Your task to perform on an android device: turn on priority inbox in the gmail app Image 0: 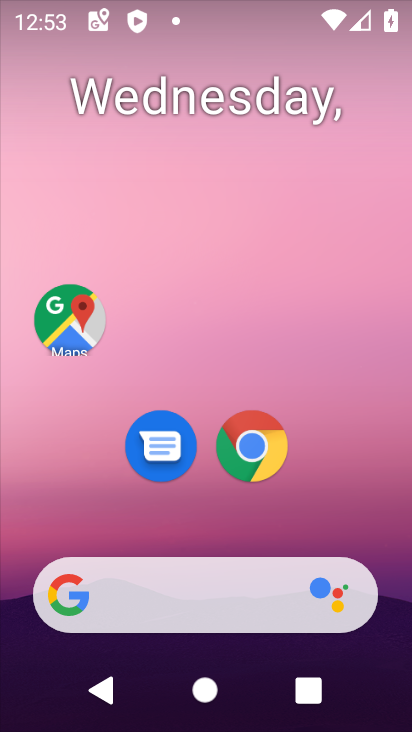
Step 0: drag from (249, 506) to (159, 104)
Your task to perform on an android device: turn on priority inbox in the gmail app Image 1: 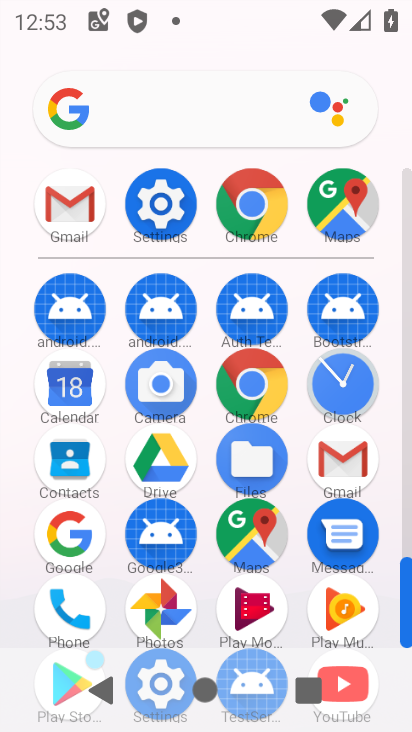
Step 1: click (340, 476)
Your task to perform on an android device: turn on priority inbox in the gmail app Image 2: 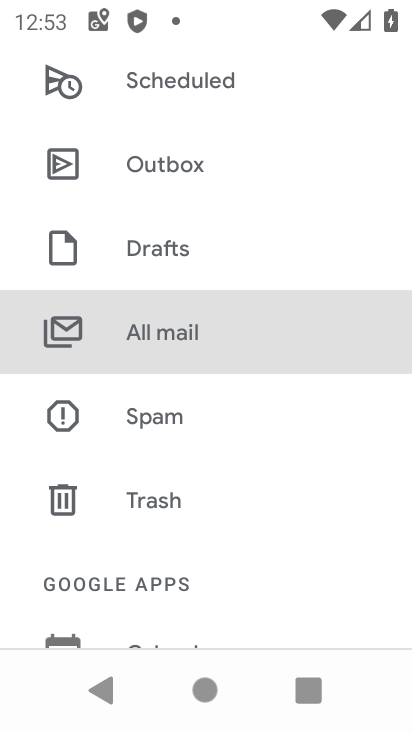
Step 2: drag from (205, 579) to (125, 207)
Your task to perform on an android device: turn on priority inbox in the gmail app Image 3: 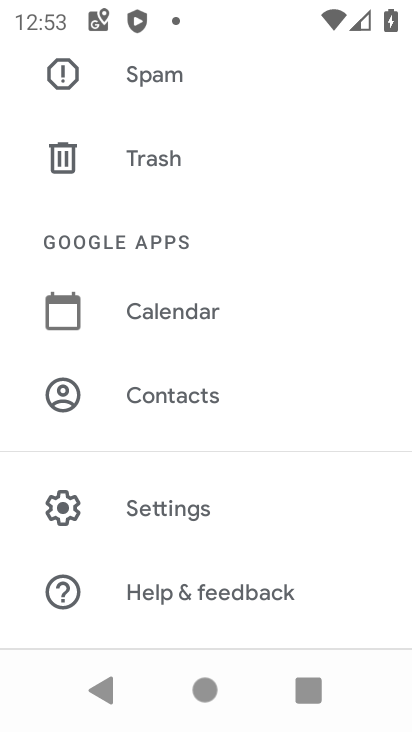
Step 3: click (181, 502)
Your task to perform on an android device: turn on priority inbox in the gmail app Image 4: 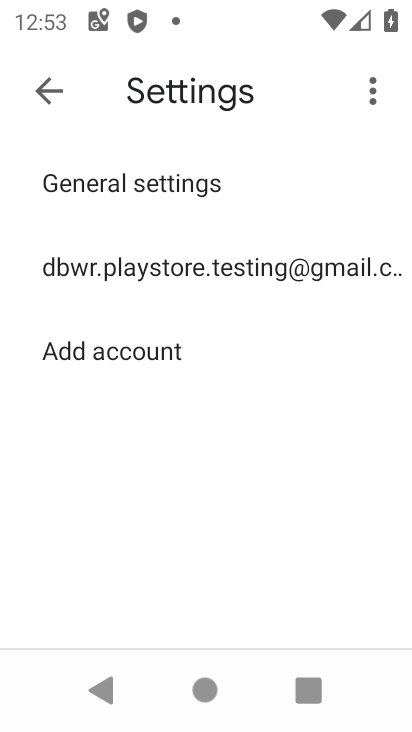
Step 4: click (153, 269)
Your task to perform on an android device: turn on priority inbox in the gmail app Image 5: 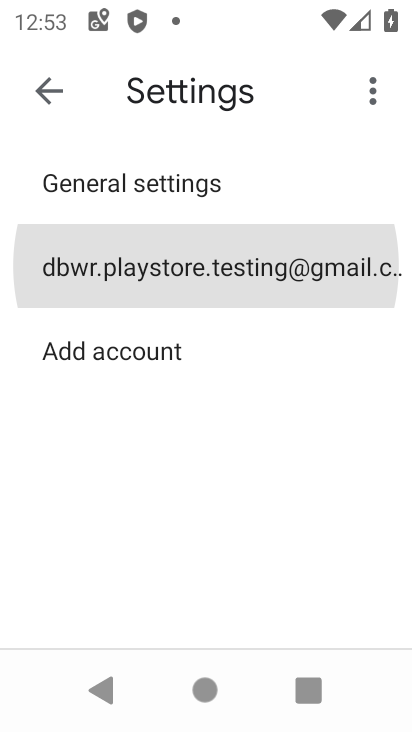
Step 5: click (153, 269)
Your task to perform on an android device: turn on priority inbox in the gmail app Image 6: 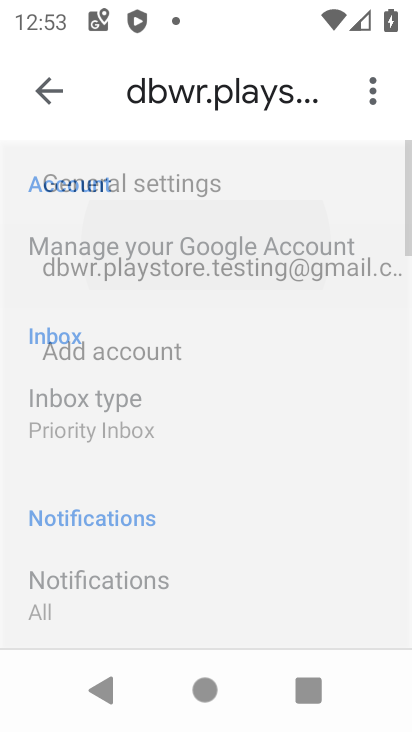
Step 6: click (152, 267)
Your task to perform on an android device: turn on priority inbox in the gmail app Image 7: 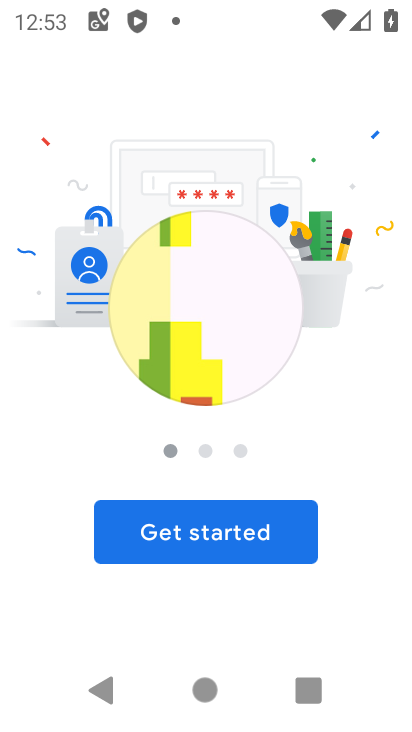
Step 7: click (218, 533)
Your task to perform on an android device: turn on priority inbox in the gmail app Image 8: 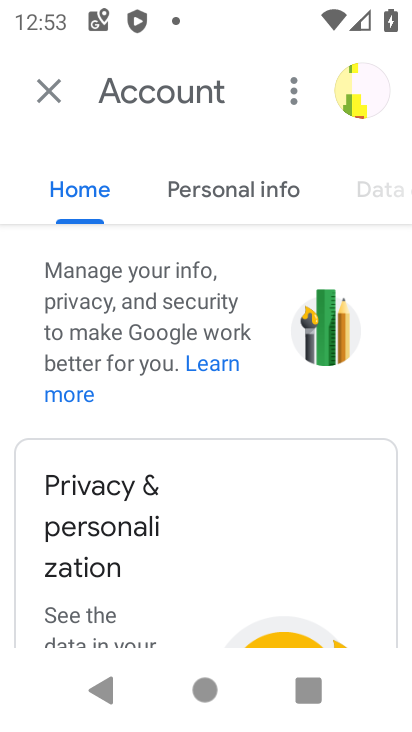
Step 8: click (50, 85)
Your task to perform on an android device: turn on priority inbox in the gmail app Image 9: 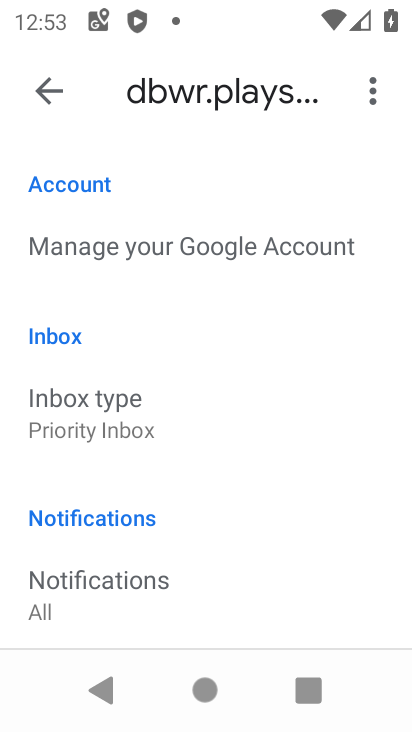
Step 9: click (82, 413)
Your task to perform on an android device: turn on priority inbox in the gmail app Image 10: 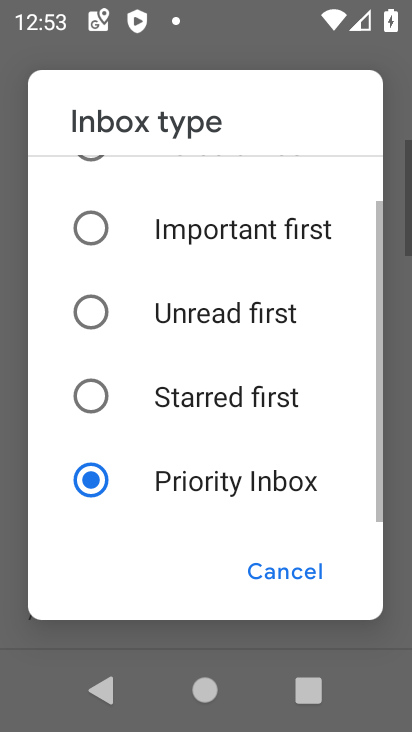
Step 10: click (82, 413)
Your task to perform on an android device: turn on priority inbox in the gmail app Image 11: 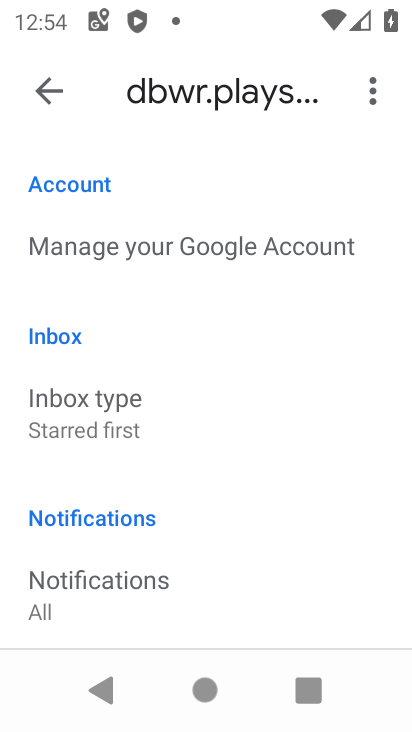
Step 11: click (91, 437)
Your task to perform on an android device: turn on priority inbox in the gmail app Image 12: 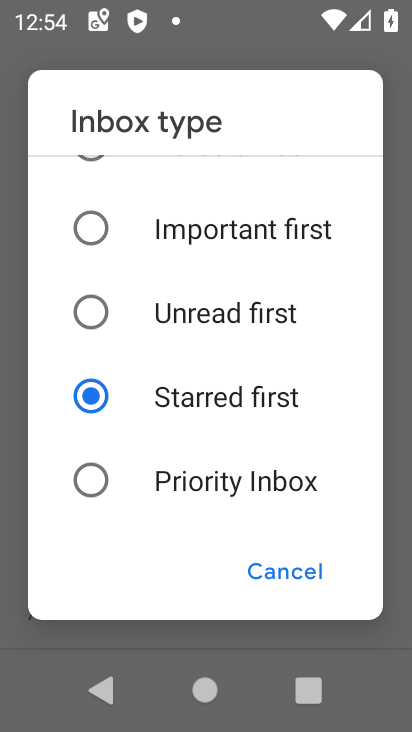
Step 12: click (84, 476)
Your task to perform on an android device: turn on priority inbox in the gmail app Image 13: 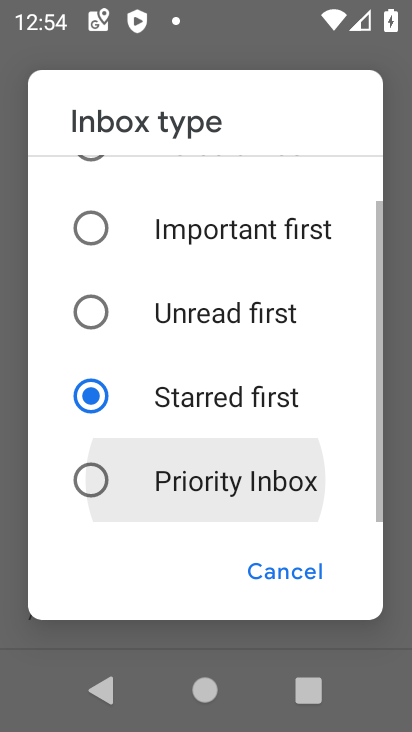
Step 13: click (83, 475)
Your task to perform on an android device: turn on priority inbox in the gmail app Image 14: 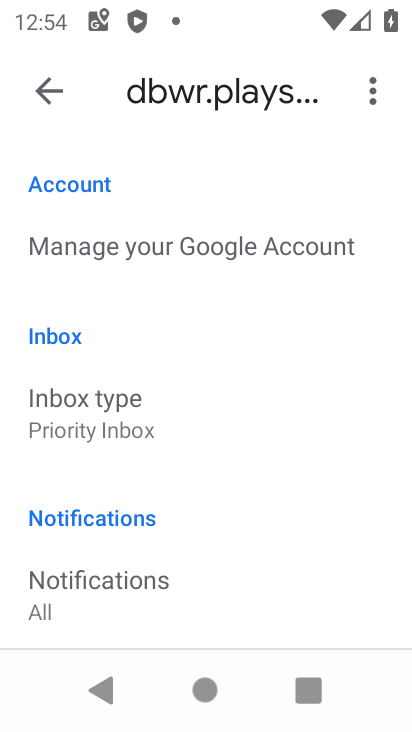
Step 14: task complete